Your task to perform on an android device: change keyboard looks Image 0: 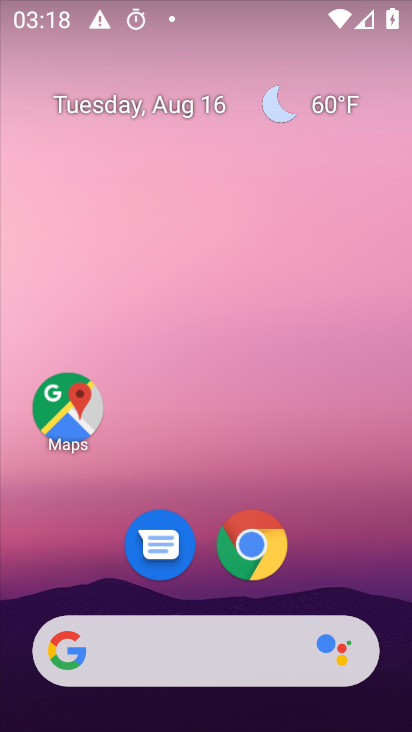
Step 0: drag from (141, 636) to (162, 331)
Your task to perform on an android device: change keyboard looks Image 1: 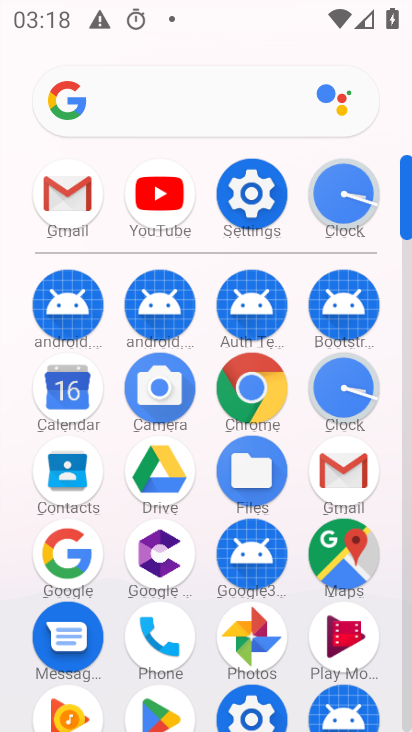
Step 1: click (235, 189)
Your task to perform on an android device: change keyboard looks Image 2: 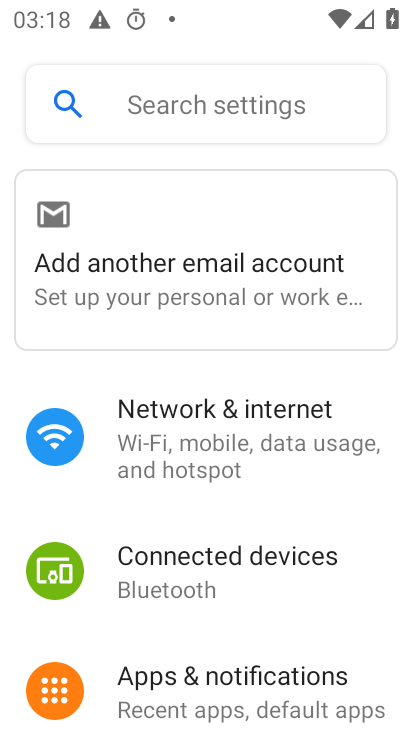
Step 2: drag from (193, 660) to (171, 247)
Your task to perform on an android device: change keyboard looks Image 3: 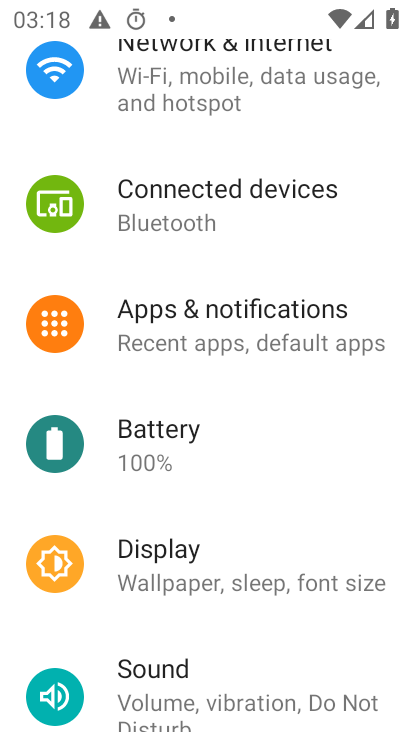
Step 3: drag from (266, 676) to (251, 353)
Your task to perform on an android device: change keyboard looks Image 4: 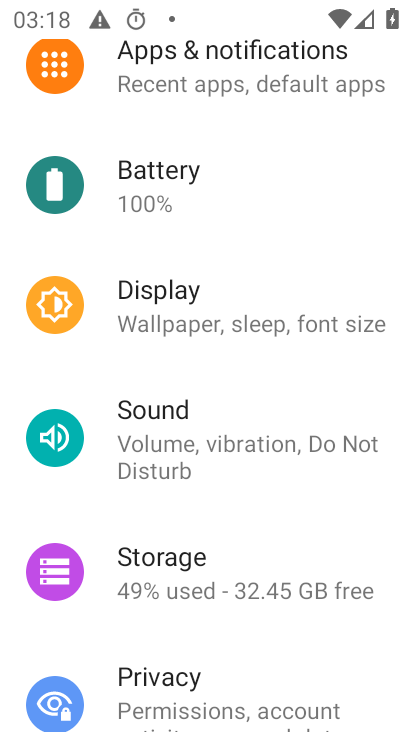
Step 4: drag from (187, 686) to (189, 349)
Your task to perform on an android device: change keyboard looks Image 5: 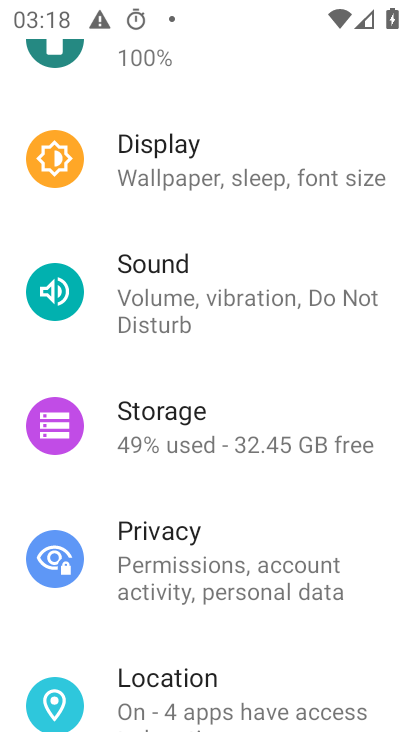
Step 5: drag from (173, 683) to (173, 395)
Your task to perform on an android device: change keyboard looks Image 6: 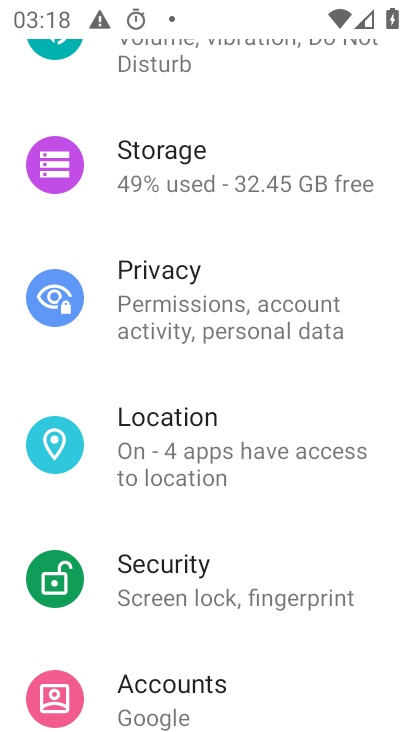
Step 6: drag from (184, 650) to (186, 358)
Your task to perform on an android device: change keyboard looks Image 7: 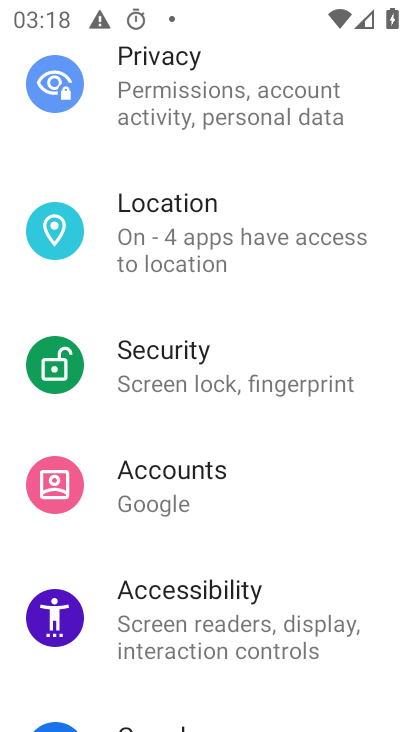
Step 7: drag from (213, 627) to (213, 328)
Your task to perform on an android device: change keyboard looks Image 8: 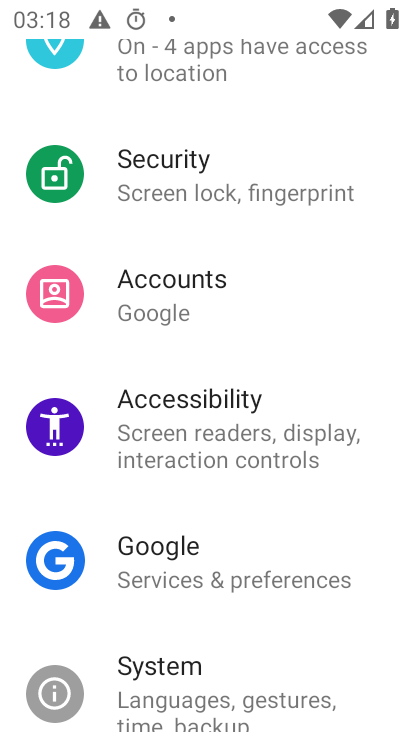
Step 8: click (165, 712)
Your task to perform on an android device: change keyboard looks Image 9: 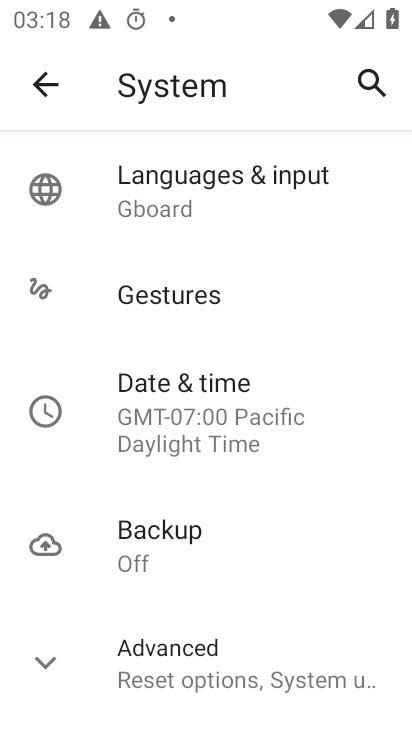
Step 9: click (226, 195)
Your task to perform on an android device: change keyboard looks Image 10: 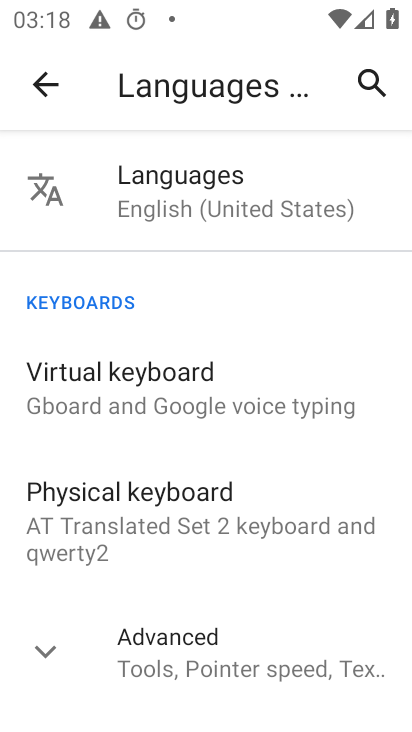
Step 10: click (127, 391)
Your task to perform on an android device: change keyboard looks Image 11: 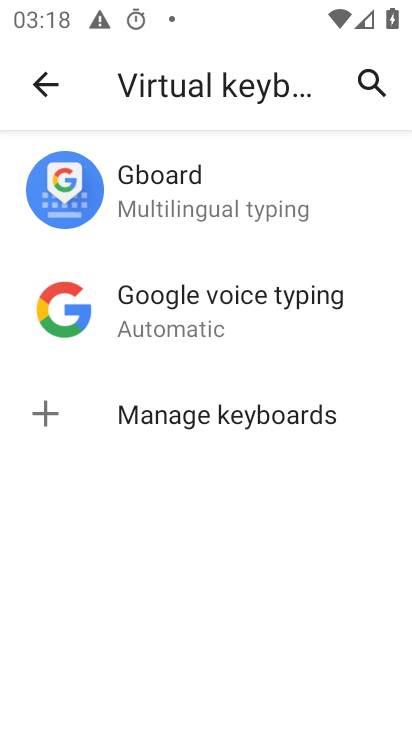
Step 11: click (146, 191)
Your task to perform on an android device: change keyboard looks Image 12: 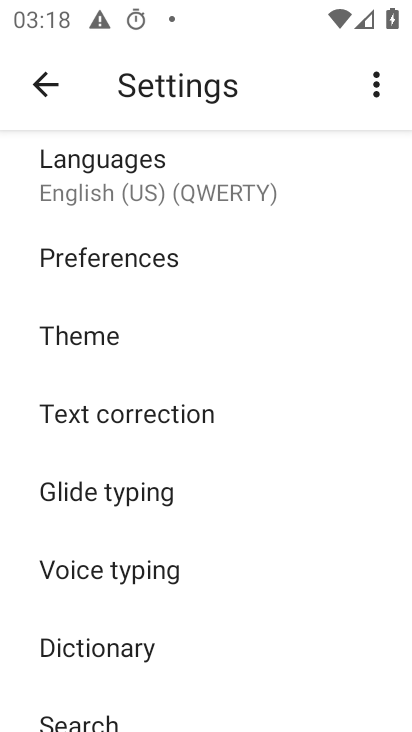
Step 12: click (95, 344)
Your task to perform on an android device: change keyboard looks Image 13: 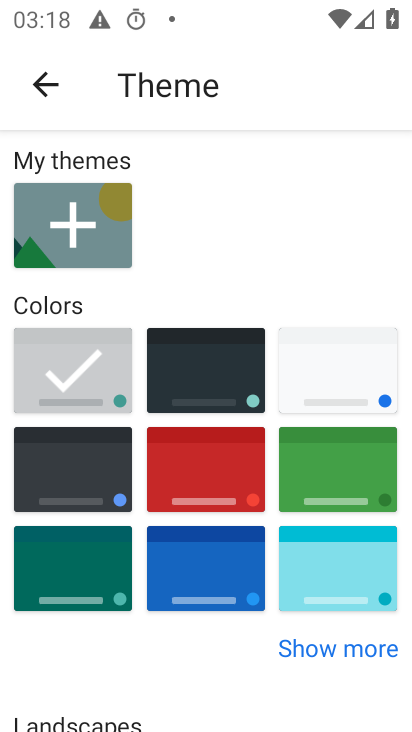
Step 13: click (189, 432)
Your task to perform on an android device: change keyboard looks Image 14: 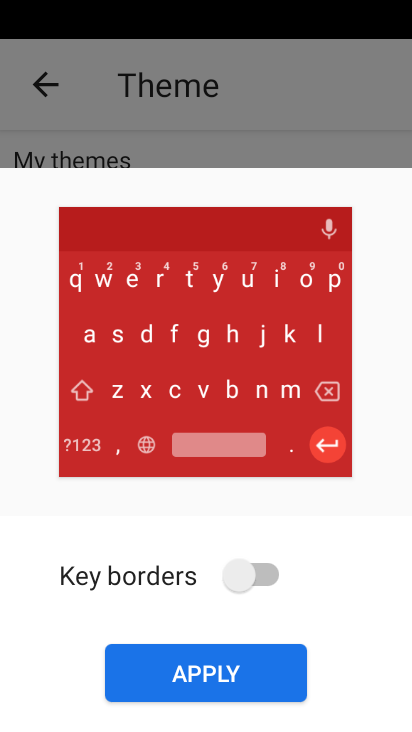
Step 14: click (228, 667)
Your task to perform on an android device: change keyboard looks Image 15: 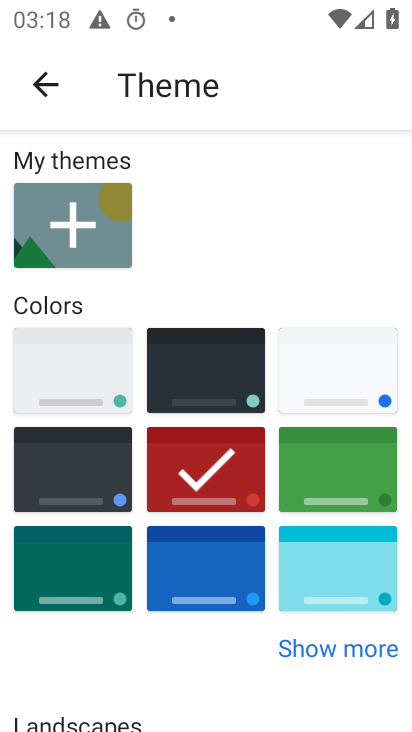
Step 15: task complete